Your task to perform on an android device: Open the web browser Image 0: 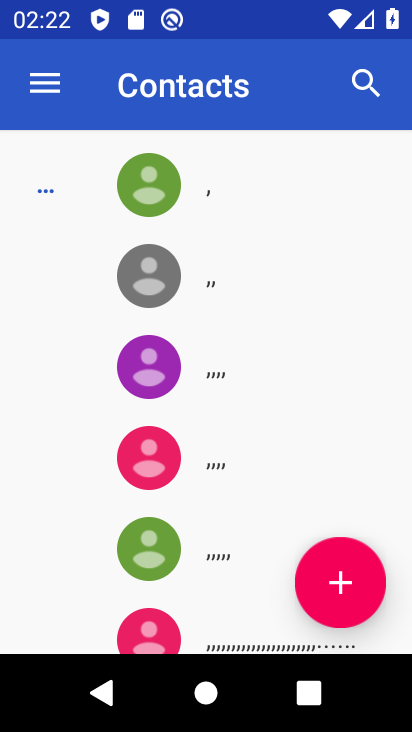
Step 0: press home button
Your task to perform on an android device: Open the web browser Image 1: 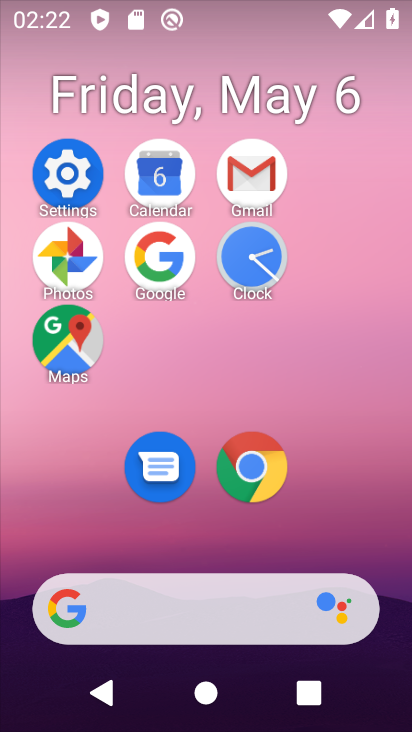
Step 1: click (241, 468)
Your task to perform on an android device: Open the web browser Image 2: 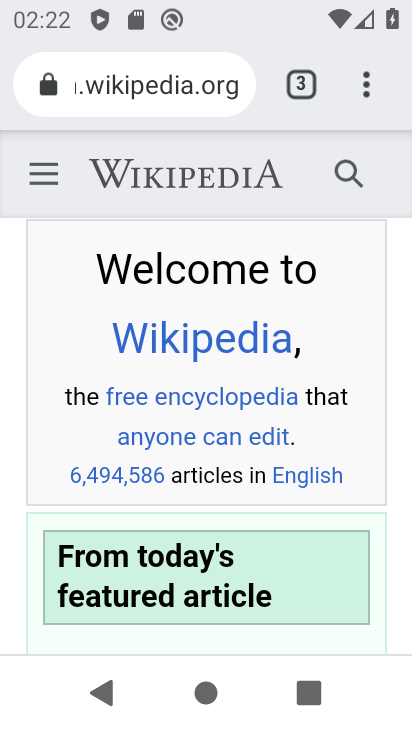
Step 2: task complete